Your task to perform on an android device: What's the US dollar exchange rateagainst the Swiss Franc? Image 0: 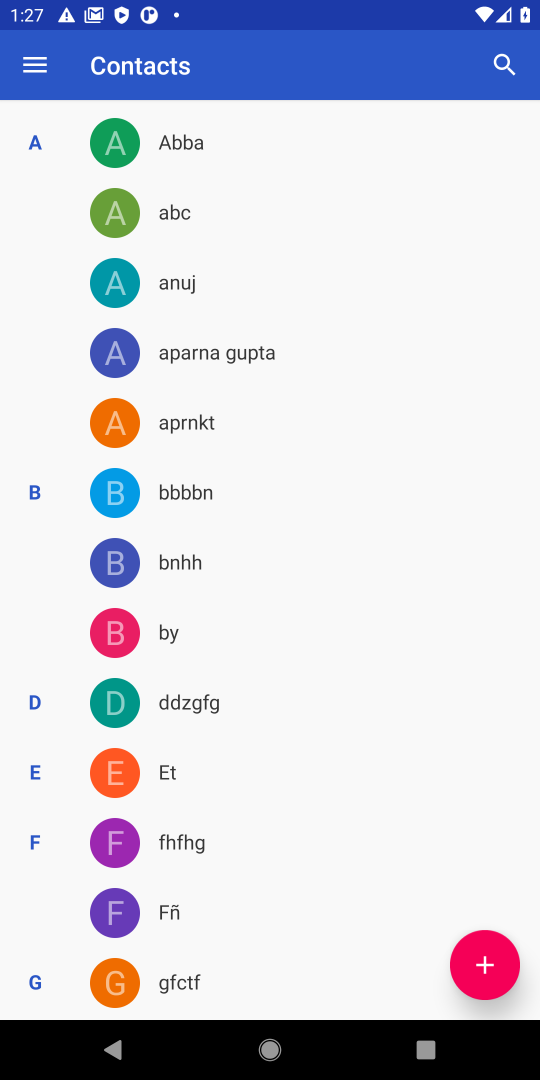
Step 0: press home button
Your task to perform on an android device: What's the US dollar exchange rateagainst the Swiss Franc? Image 1: 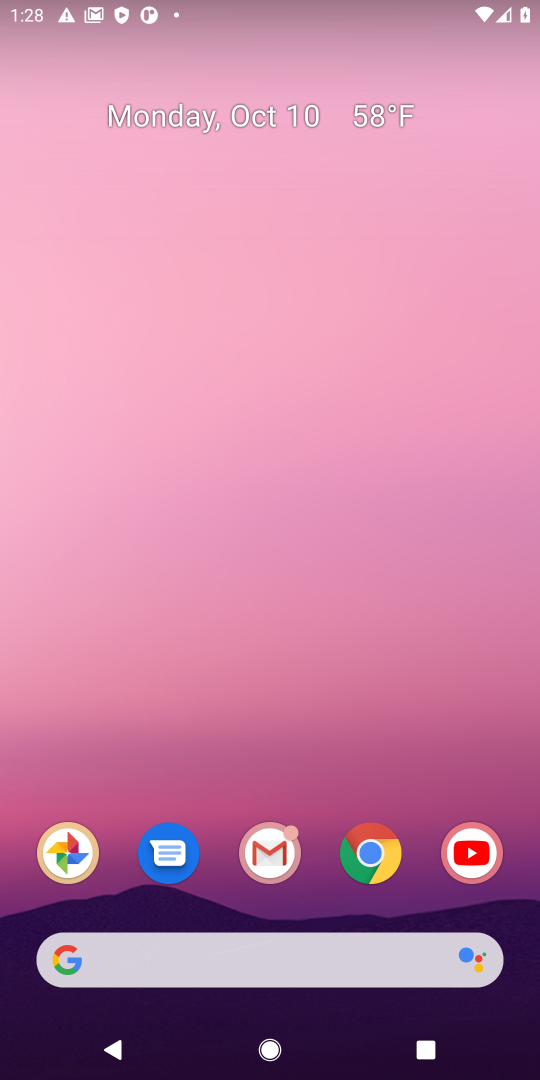
Step 1: click (366, 879)
Your task to perform on an android device: What's the US dollar exchange rateagainst the Swiss Franc? Image 2: 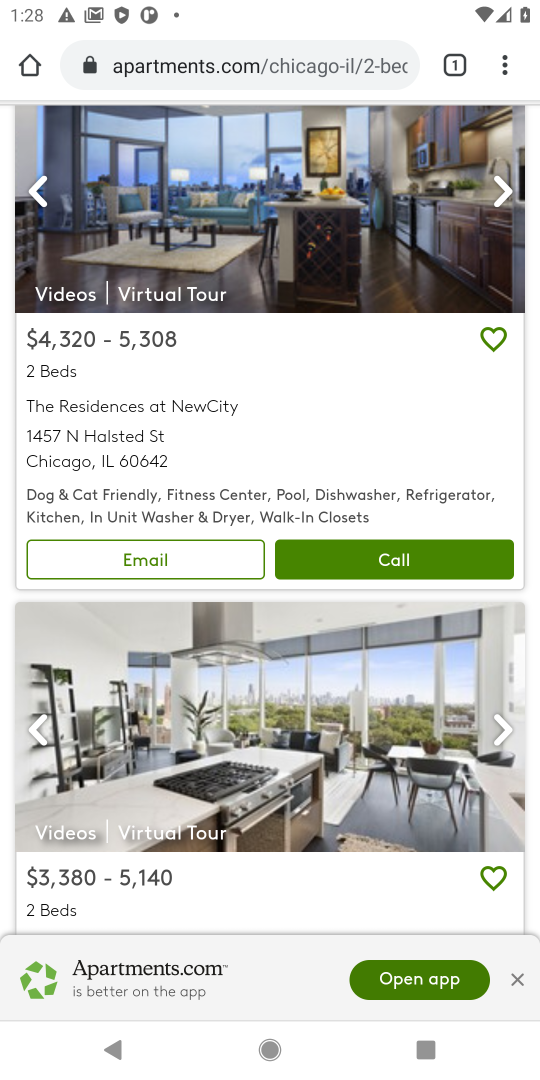
Step 2: click (282, 58)
Your task to perform on an android device: What's the US dollar exchange rateagainst the Swiss Franc? Image 3: 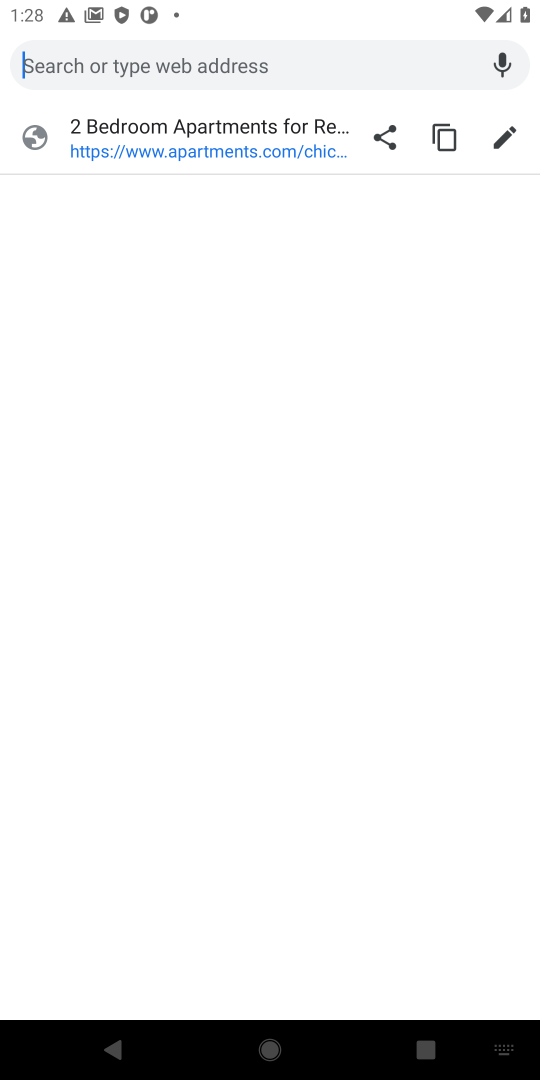
Step 3: type "US dollar exchange rateagainst the Swiss Franc"
Your task to perform on an android device: What's the US dollar exchange rateagainst the Swiss Franc? Image 4: 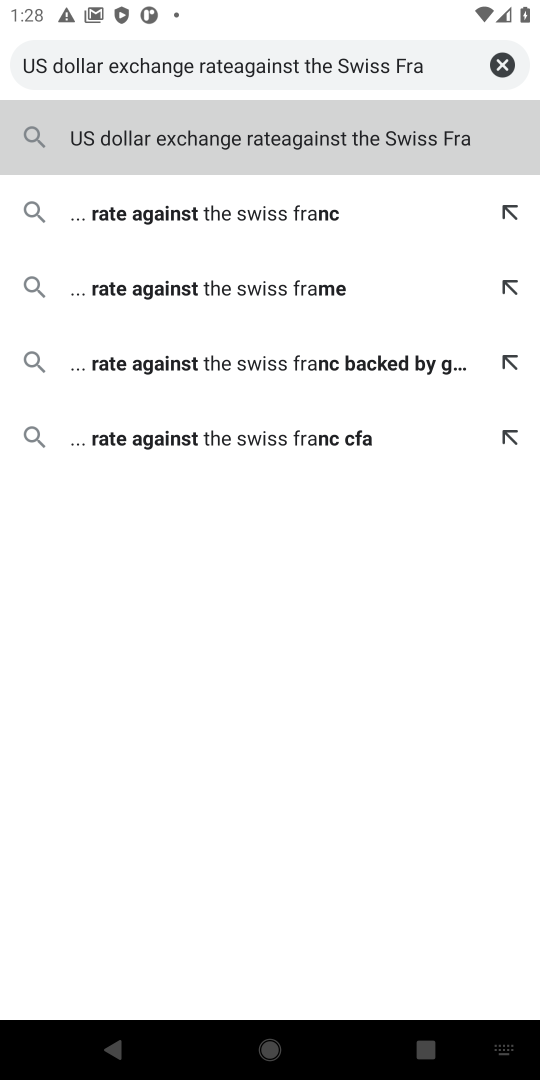
Step 4: click (405, 151)
Your task to perform on an android device: What's the US dollar exchange rateagainst the Swiss Franc? Image 5: 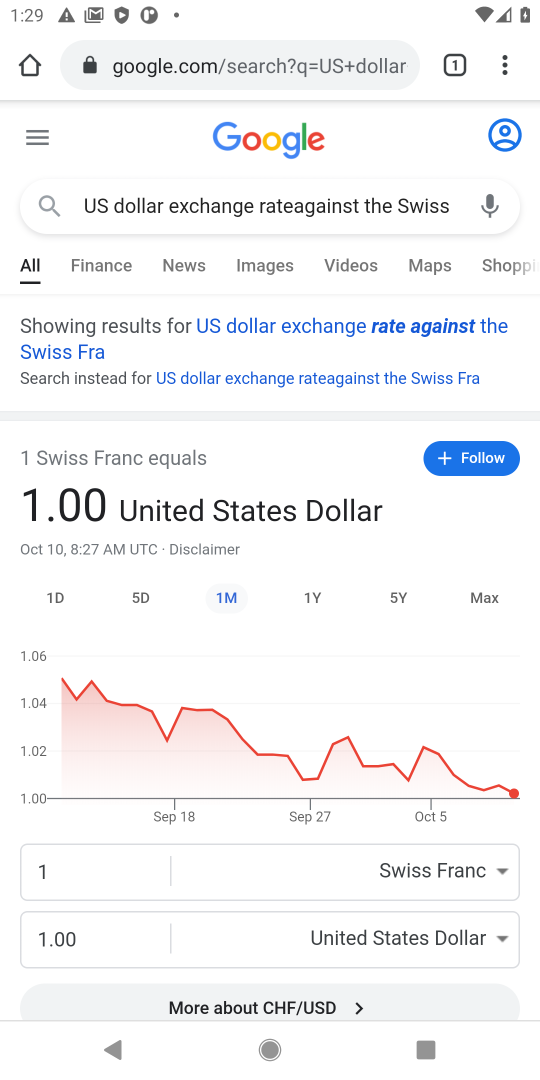
Step 5: task complete